Your task to perform on an android device: Search for the new Jordans on Nike.com Image 0: 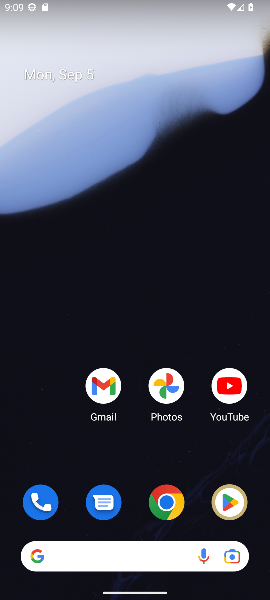
Step 0: drag from (76, 460) to (44, 9)
Your task to perform on an android device: Search for the new Jordans on Nike.com Image 1: 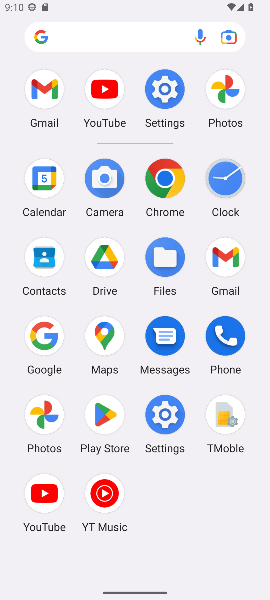
Step 1: click (41, 341)
Your task to perform on an android device: Search for the new Jordans on Nike.com Image 2: 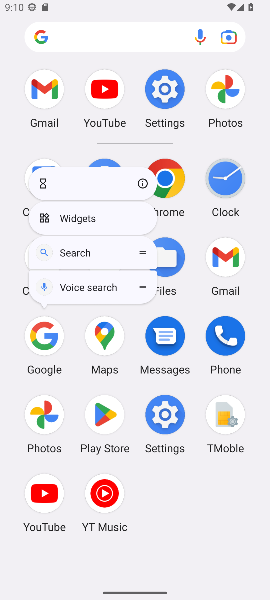
Step 2: click (41, 341)
Your task to perform on an android device: Search for the new Jordans on Nike.com Image 3: 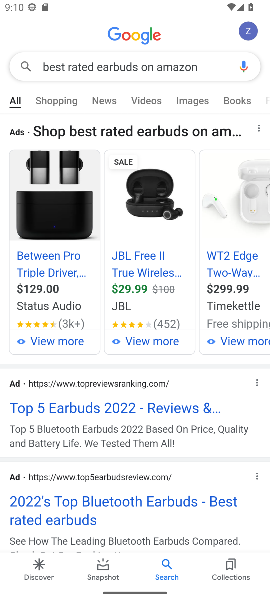
Step 3: press back button
Your task to perform on an android device: Search for the new Jordans on Nike.com Image 4: 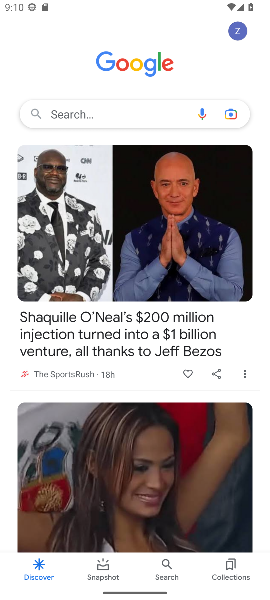
Step 4: click (97, 116)
Your task to perform on an android device: Search for the new Jordans on Nike.com Image 5: 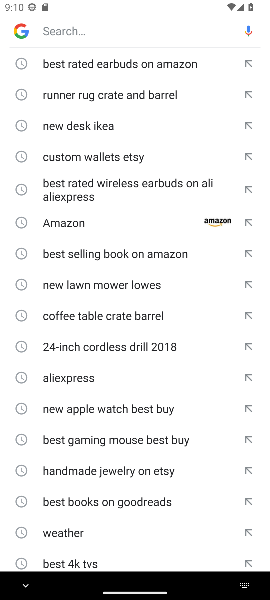
Step 5: type "new Jordans on Nike.com"
Your task to perform on an android device: Search for the new Jordans on Nike.com Image 6: 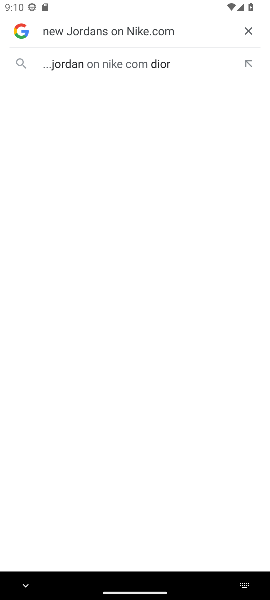
Step 6: click (140, 67)
Your task to perform on an android device: Search for the new Jordans on Nike.com Image 7: 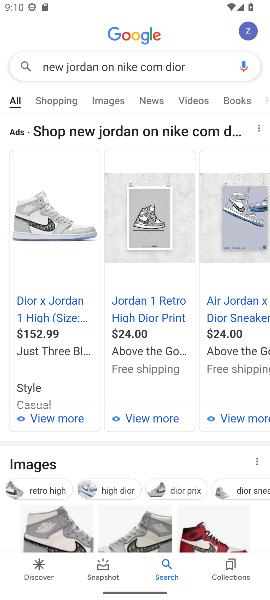
Step 7: task complete